Your task to perform on an android device: delete browsing data in the chrome app Image 0: 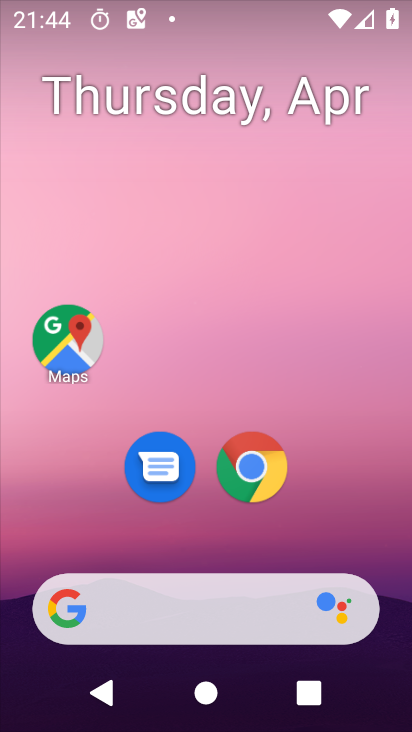
Step 0: drag from (215, 563) to (173, 27)
Your task to perform on an android device: delete browsing data in the chrome app Image 1: 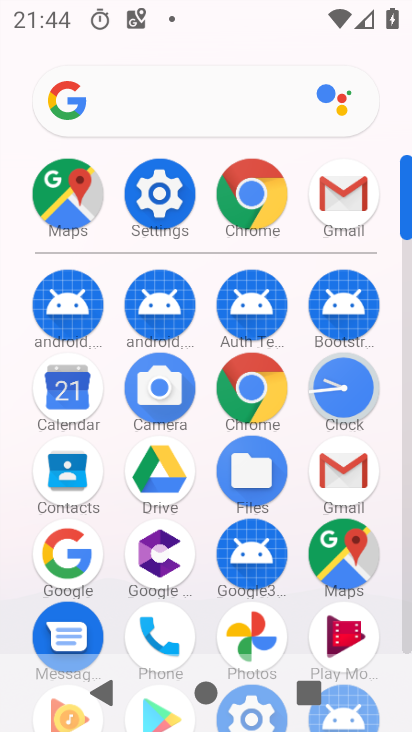
Step 1: click (250, 176)
Your task to perform on an android device: delete browsing data in the chrome app Image 2: 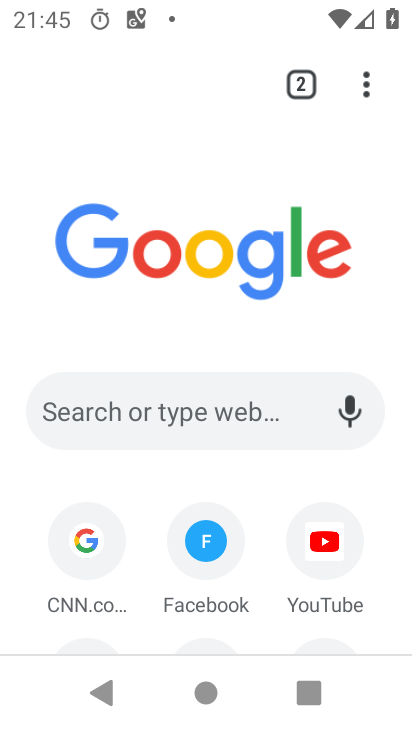
Step 2: drag from (360, 79) to (75, 348)
Your task to perform on an android device: delete browsing data in the chrome app Image 3: 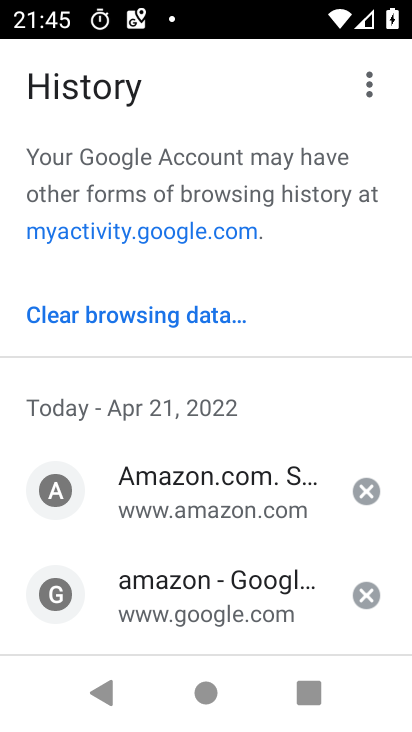
Step 3: click (109, 320)
Your task to perform on an android device: delete browsing data in the chrome app Image 4: 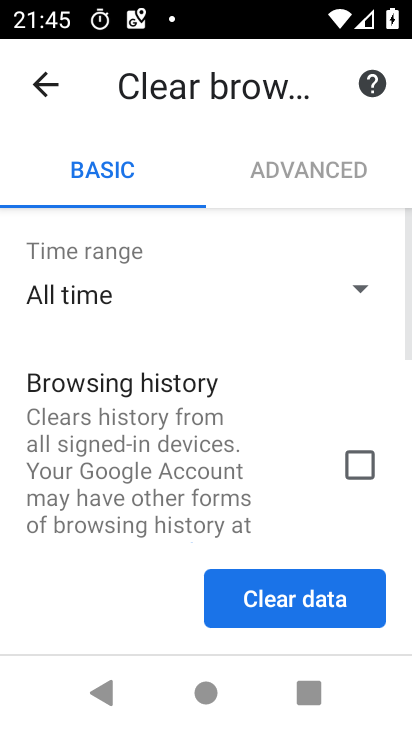
Step 4: click (345, 462)
Your task to perform on an android device: delete browsing data in the chrome app Image 5: 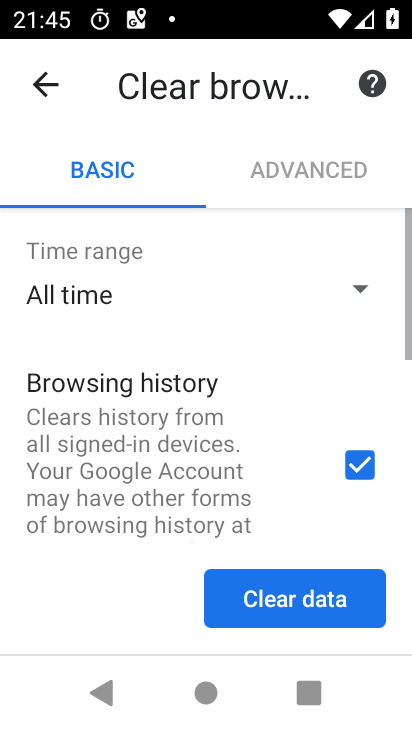
Step 5: click (326, 567)
Your task to perform on an android device: delete browsing data in the chrome app Image 6: 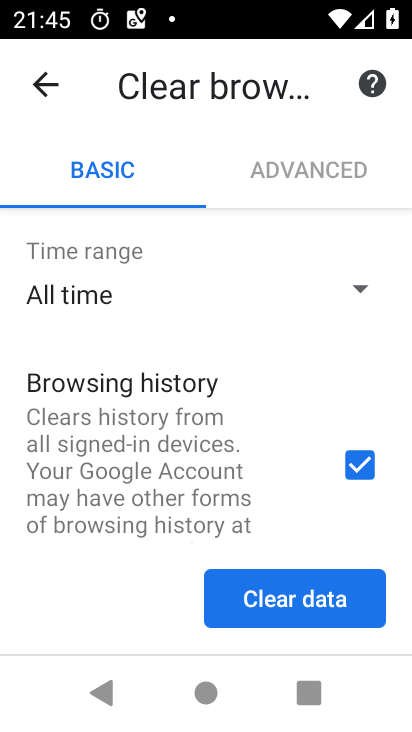
Step 6: click (331, 593)
Your task to perform on an android device: delete browsing data in the chrome app Image 7: 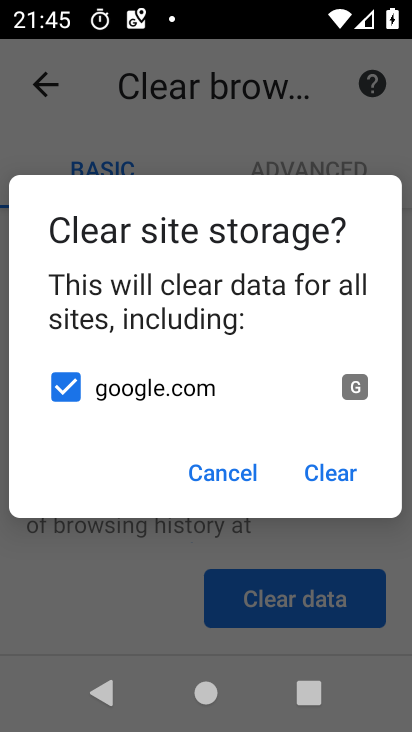
Step 7: click (347, 479)
Your task to perform on an android device: delete browsing data in the chrome app Image 8: 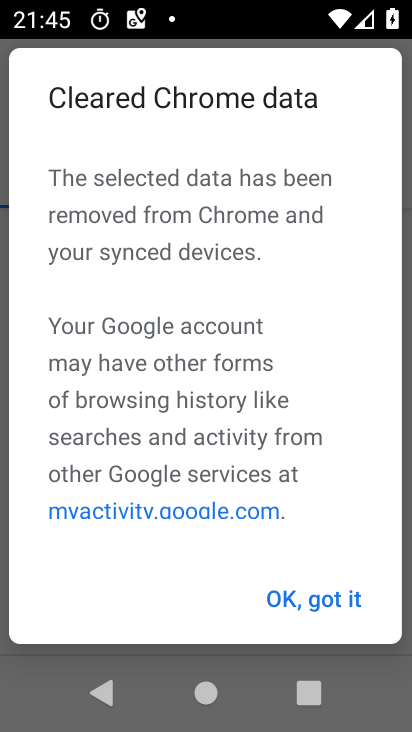
Step 8: click (301, 601)
Your task to perform on an android device: delete browsing data in the chrome app Image 9: 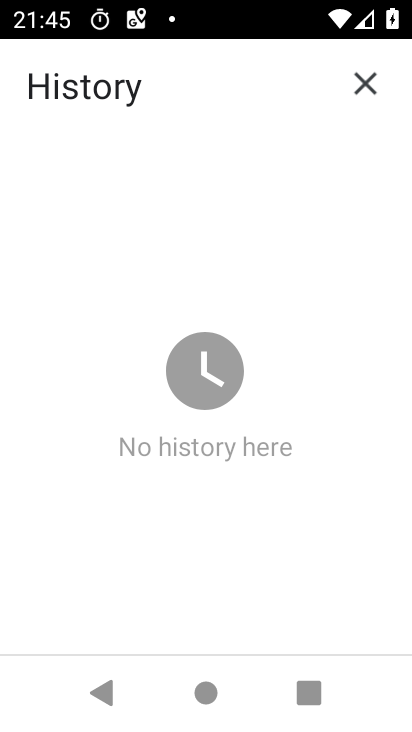
Step 9: task complete